Your task to perform on an android device: Open notification settings Image 0: 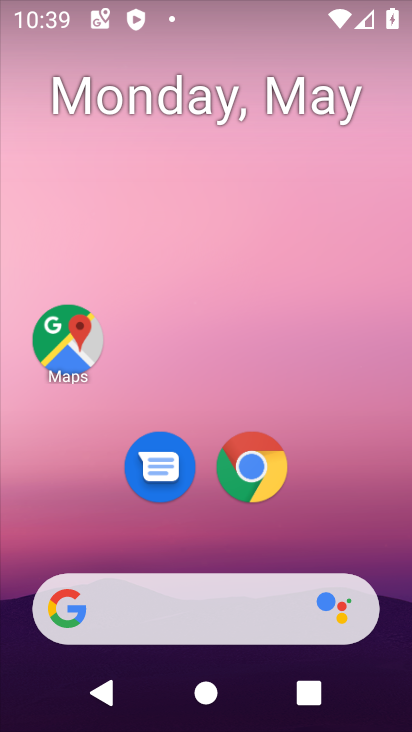
Step 0: drag from (393, 560) to (390, 182)
Your task to perform on an android device: Open notification settings Image 1: 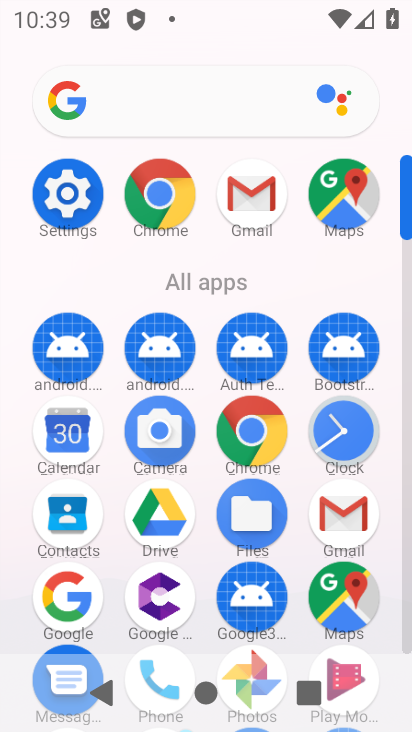
Step 1: click (23, 186)
Your task to perform on an android device: Open notification settings Image 2: 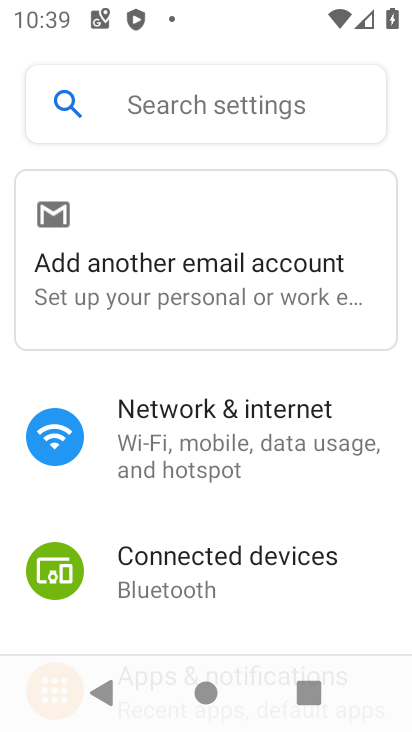
Step 2: drag from (279, 613) to (302, 261)
Your task to perform on an android device: Open notification settings Image 3: 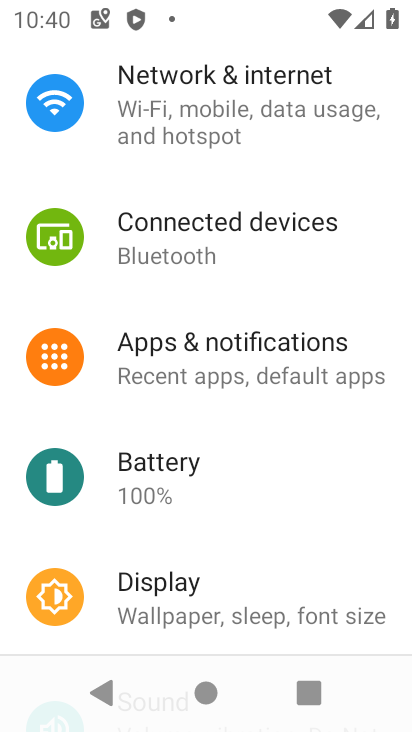
Step 3: drag from (256, 572) to (283, 297)
Your task to perform on an android device: Open notification settings Image 4: 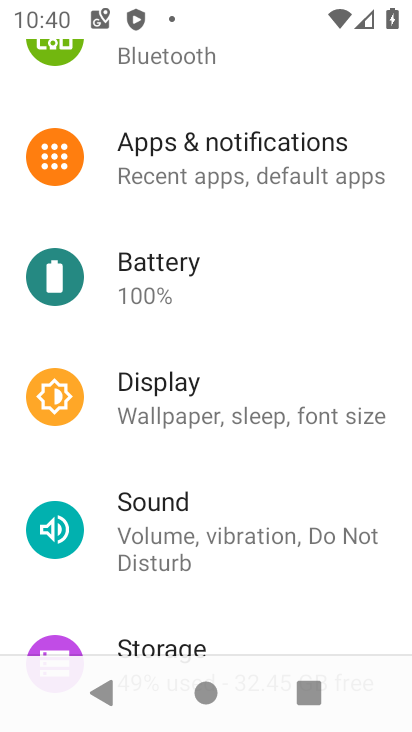
Step 4: click (240, 146)
Your task to perform on an android device: Open notification settings Image 5: 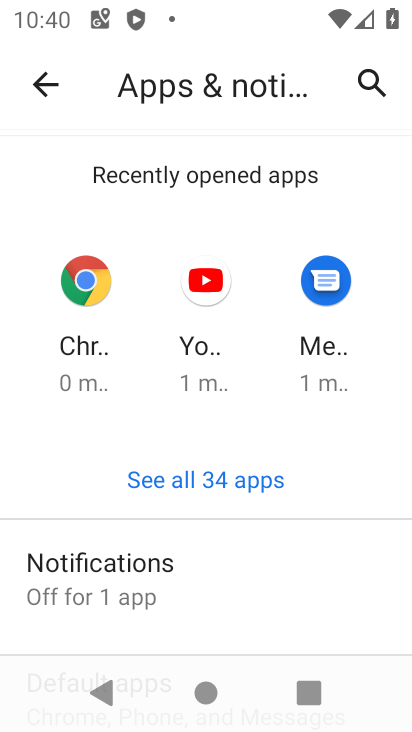
Step 5: click (105, 569)
Your task to perform on an android device: Open notification settings Image 6: 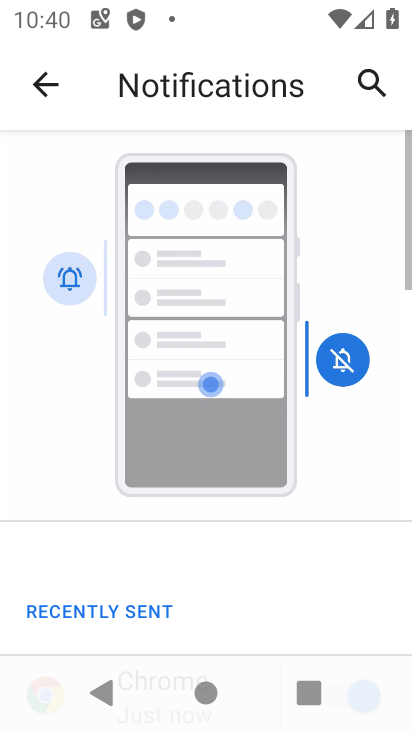
Step 6: drag from (252, 599) to (302, 135)
Your task to perform on an android device: Open notification settings Image 7: 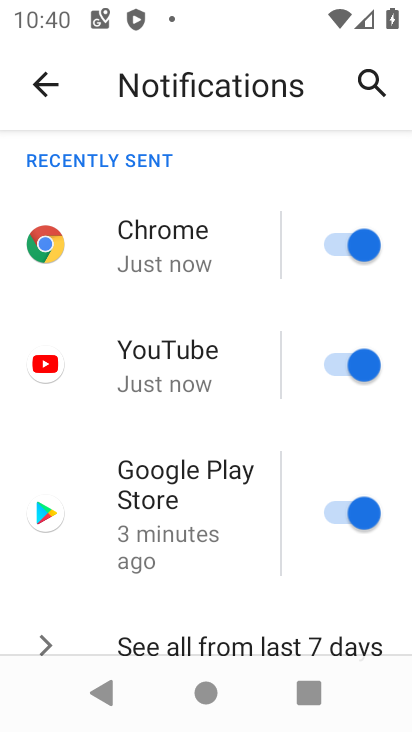
Step 7: click (269, 275)
Your task to perform on an android device: Open notification settings Image 8: 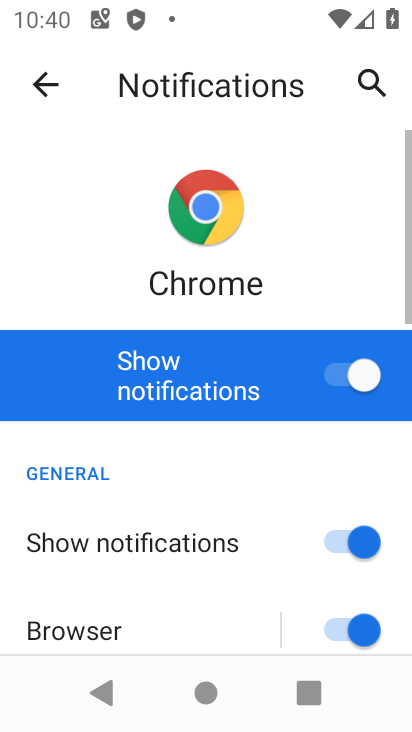
Step 8: task complete